Your task to perform on an android device: toggle location history Image 0: 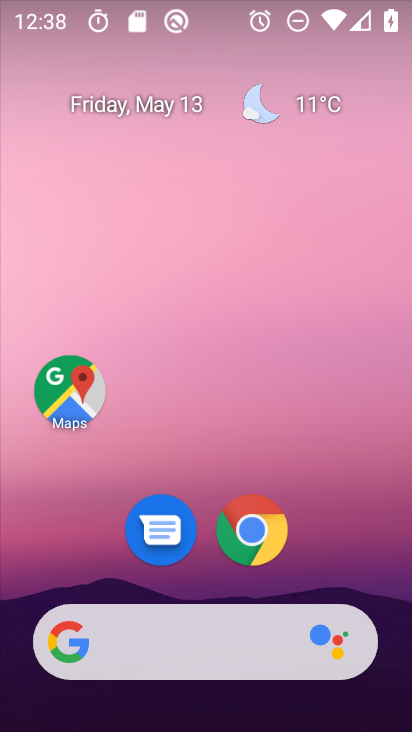
Step 0: press home button
Your task to perform on an android device: toggle location history Image 1: 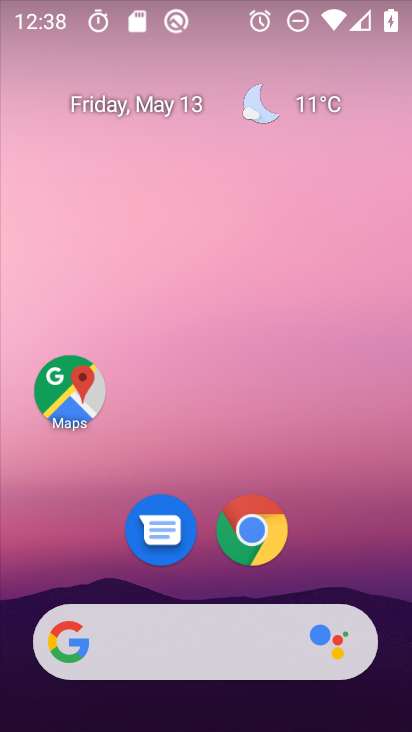
Step 1: drag from (154, 654) to (283, 95)
Your task to perform on an android device: toggle location history Image 2: 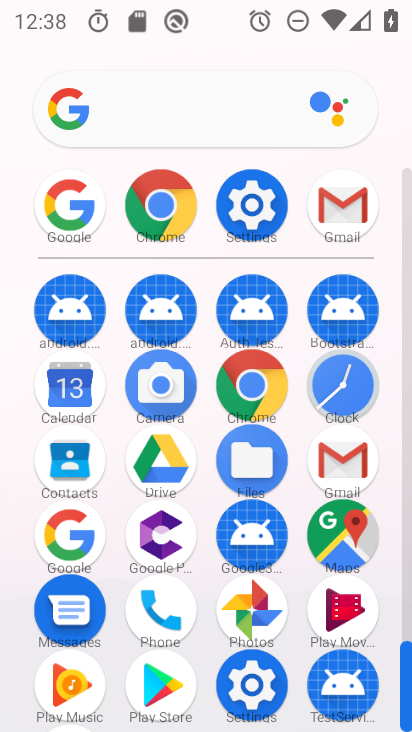
Step 2: click (340, 548)
Your task to perform on an android device: toggle location history Image 3: 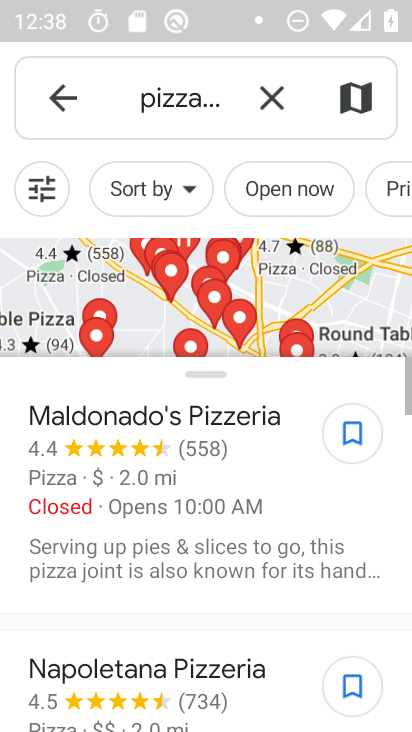
Step 3: click (58, 98)
Your task to perform on an android device: toggle location history Image 4: 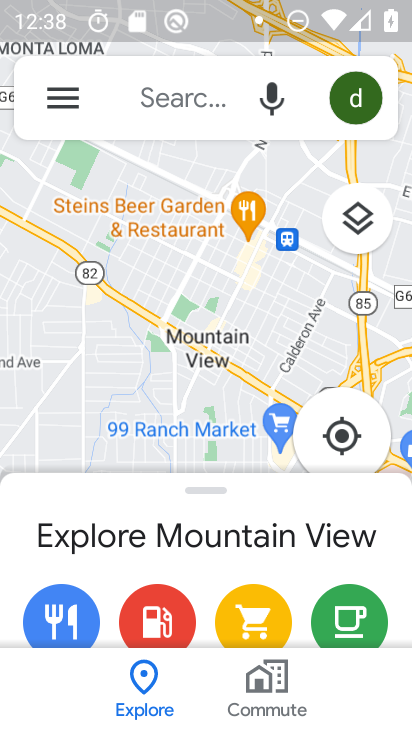
Step 4: click (59, 103)
Your task to perform on an android device: toggle location history Image 5: 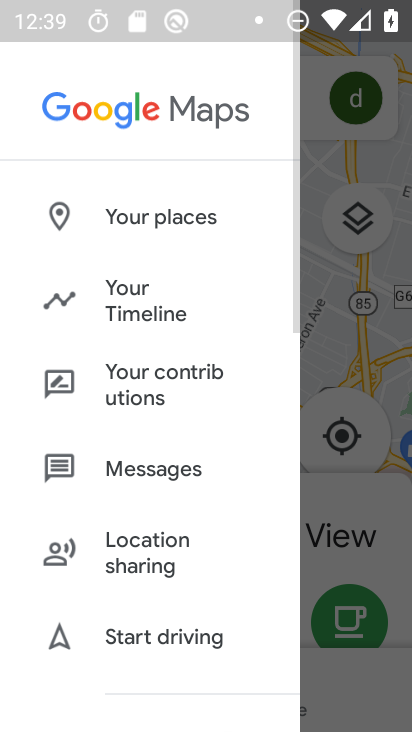
Step 5: click (122, 303)
Your task to perform on an android device: toggle location history Image 6: 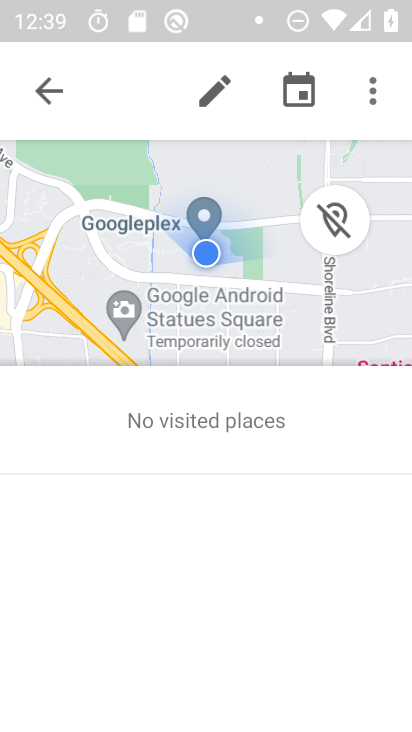
Step 6: click (370, 94)
Your task to perform on an android device: toggle location history Image 7: 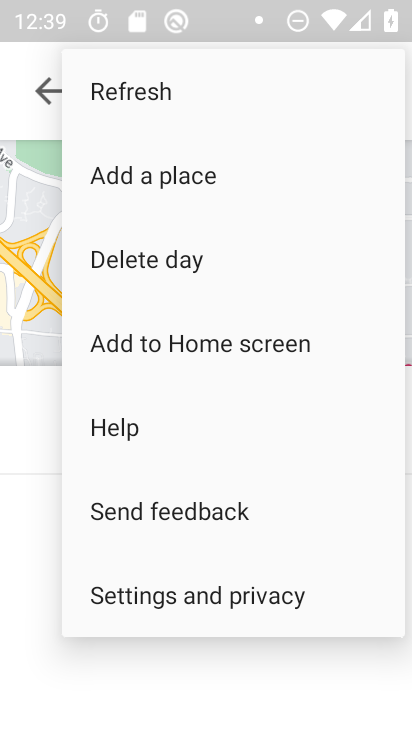
Step 7: click (165, 592)
Your task to perform on an android device: toggle location history Image 8: 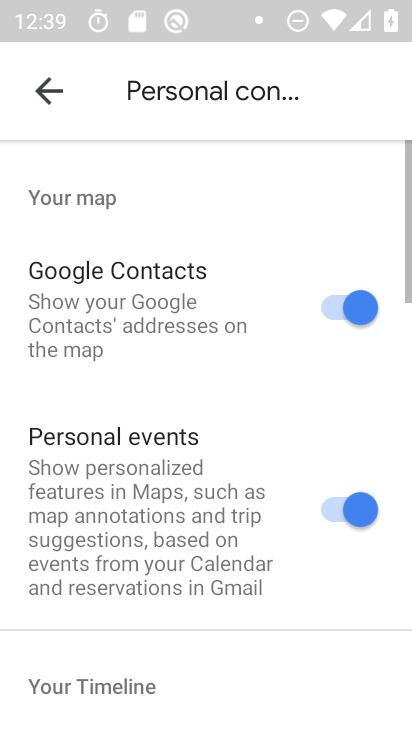
Step 8: drag from (158, 639) to (295, 67)
Your task to perform on an android device: toggle location history Image 9: 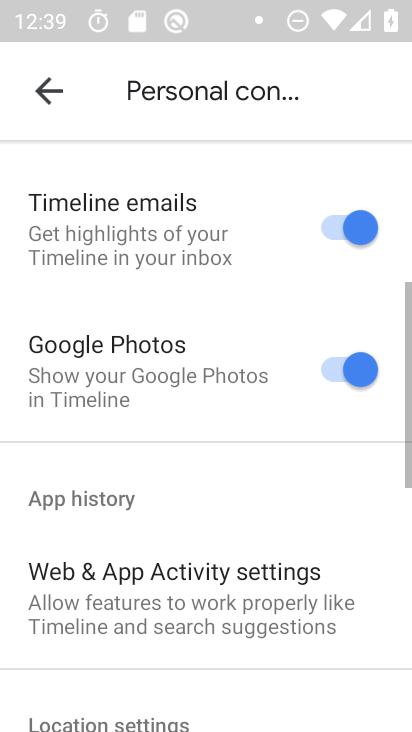
Step 9: drag from (152, 627) to (245, 77)
Your task to perform on an android device: toggle location history Image 10: 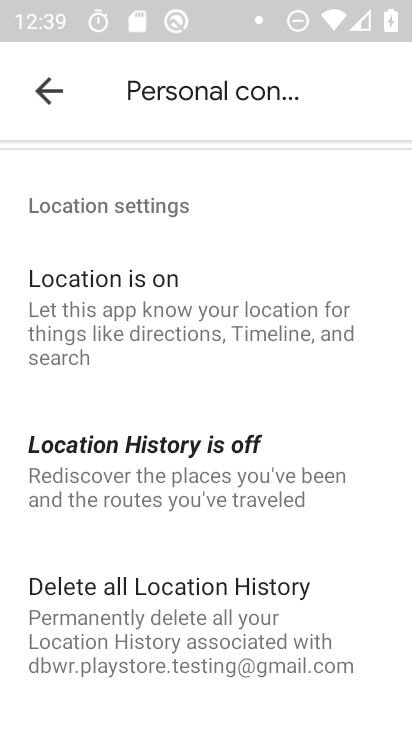
Step 10: click (200, 464)
Your task to perform on an android device: toggle location history Image 11: 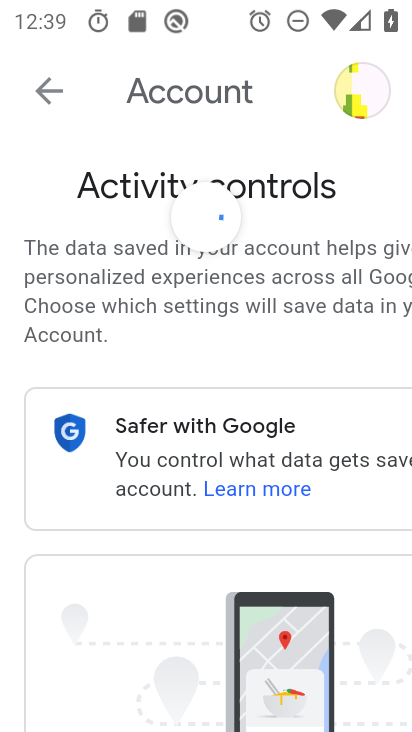
Step 11: drag from (138, 645) to (259, 192)
Your task to perform on an android device: toggle location history Image 12: 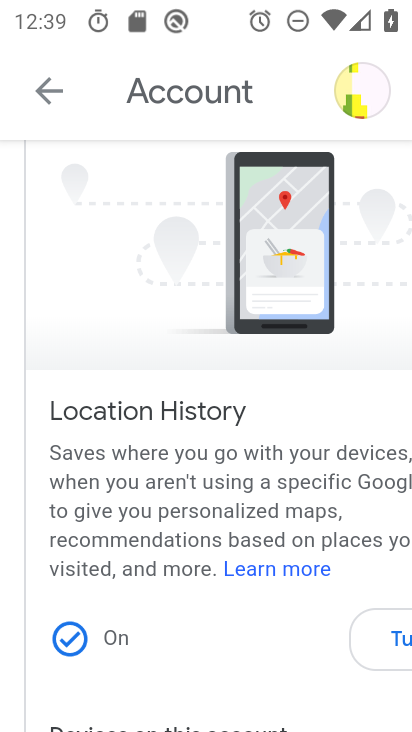
Step 12: click (395, 630)
Your task to perform on an android device: toggle location history Image 13: 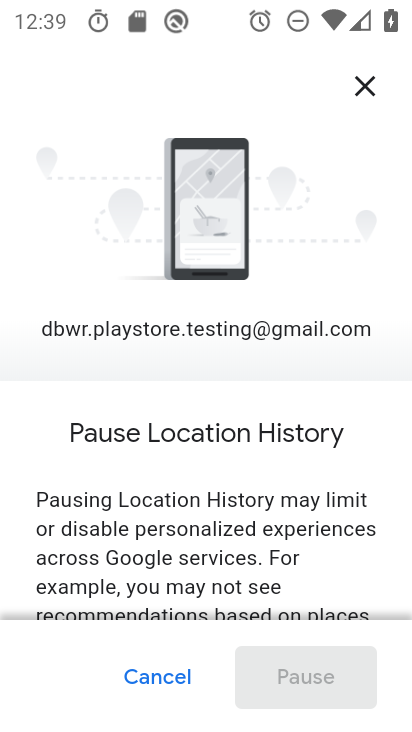
Step 13: drag from (213, 572) to (315, 137)
Your task to perform on an android device: toggle location history Image 14: 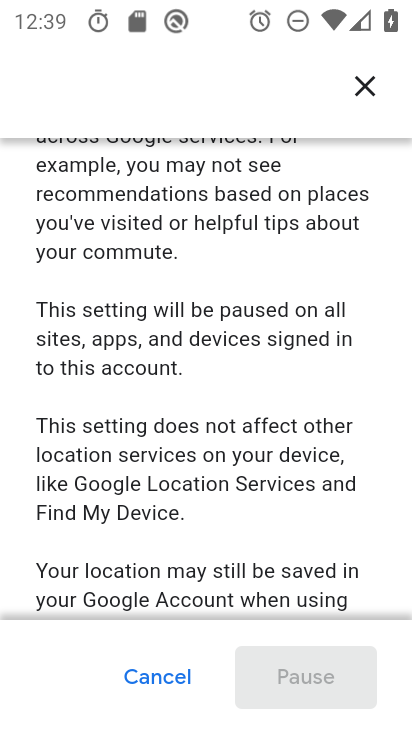
Step 14: drag from (246, 510) to (353, 104)
Your task to perform on an android device: toggle location history Image 15: 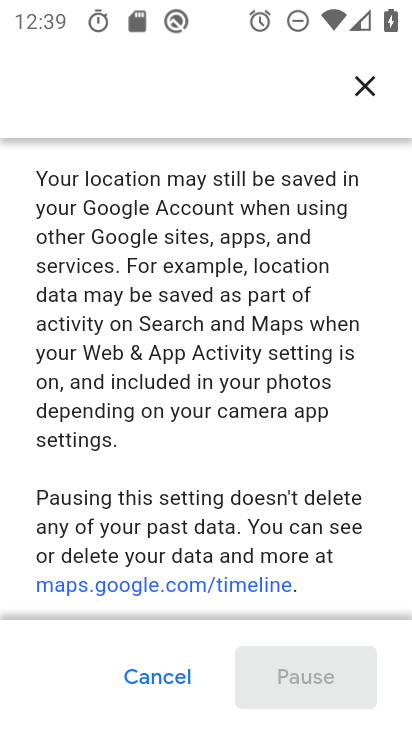
Step 15: drag from (260, 579) to (372, 144)
Your task to perform on an android device: toggle location history Image 16: 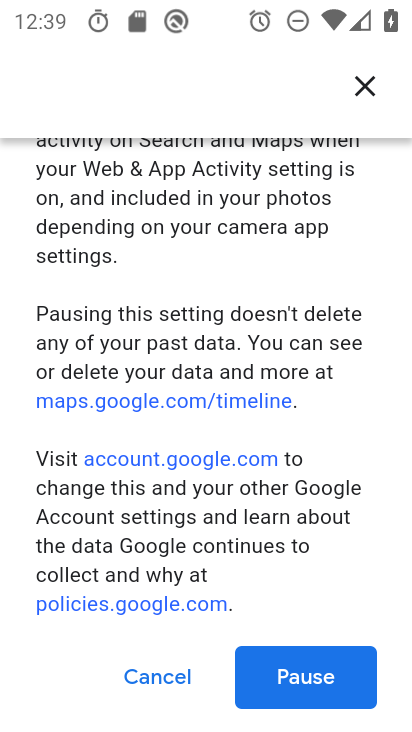
Step 16: click (297, 686)
Your task to perform on an android device: toggle location history Image 17: 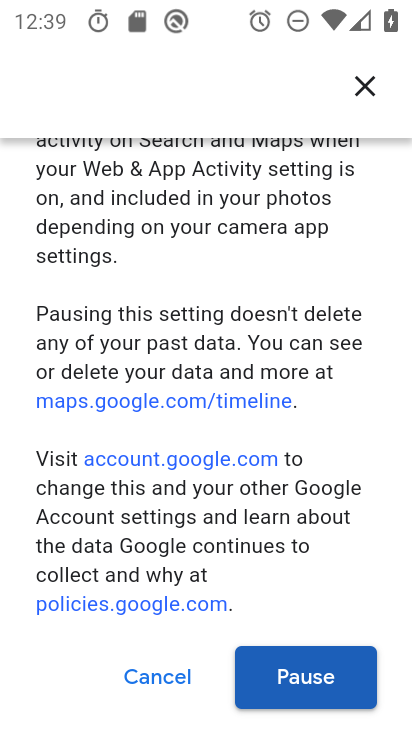
Step 17: click (316, 681)
Your task to perform on an android device: toggle location history Image 18: 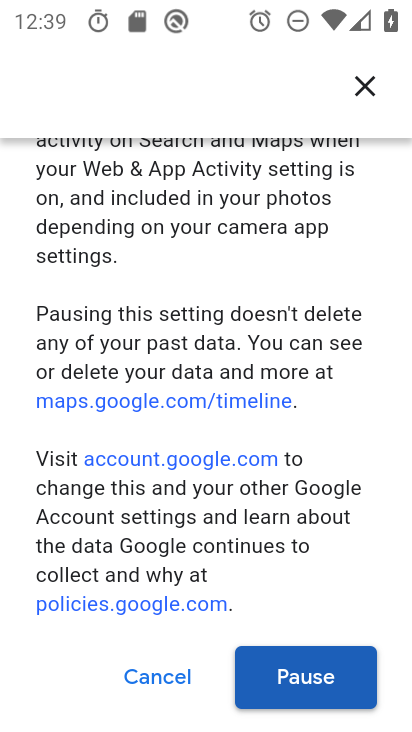
Step 18: click (312, 682)
Your task to perform on an android device: toggle location history Image 19: 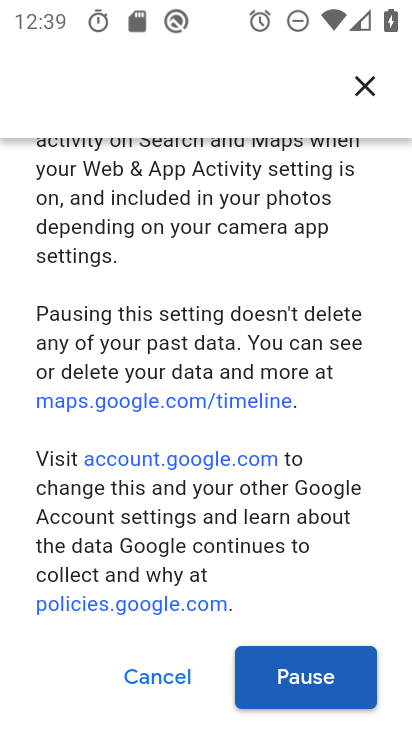
Step 19: click (307, 679)
Your task to perform on an android device: toggle location history Image 20: 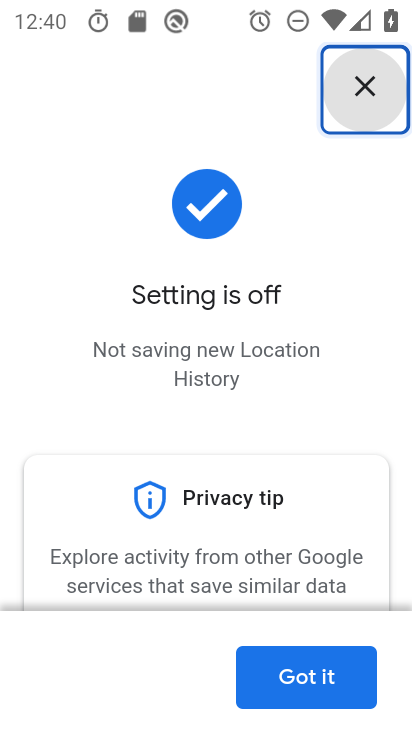
Step 20: click (307, 679)
Your task to perform on an android device: toggle location history Image 21: 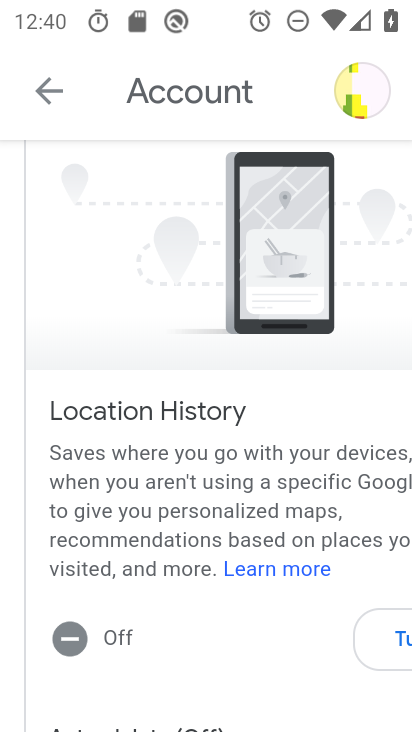
Step 21: task complete